Your task to perform on an android device: When is my next meeting? Image 0: 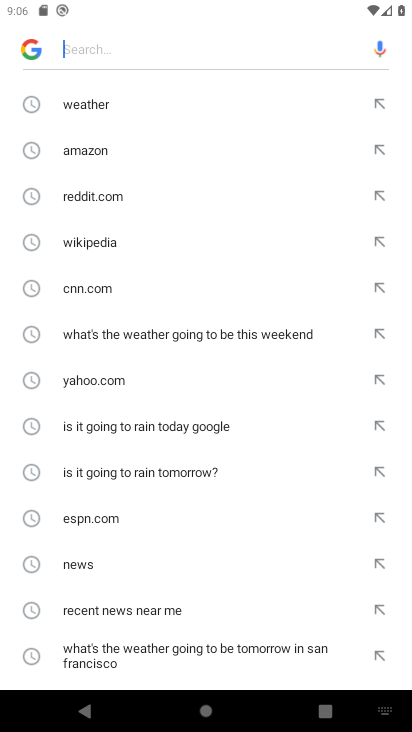
Step 0: press home button
Your task to perform on an android device: When is my next meeting? Image 1: 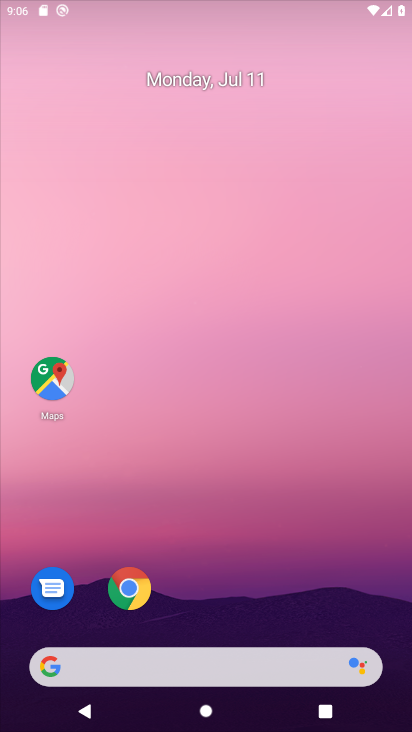
Step 1: drag from (207, 649) to (243, 126)
Your task to perform on an android device: When is my next meeting? Image 2: 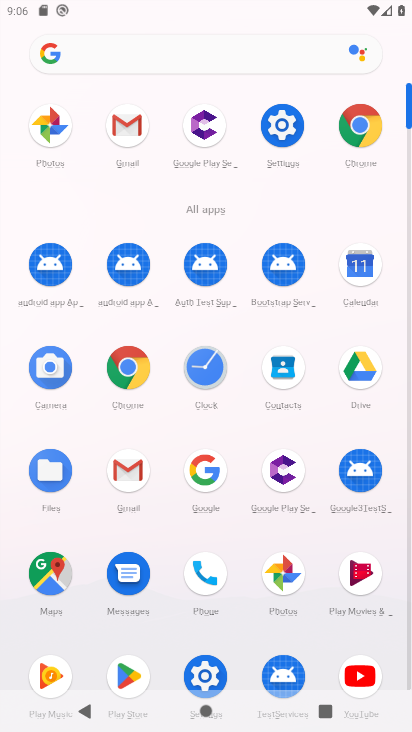
Step 2: click (356, 271)
Your task to perform on an android device: When is my next meeting? Image 3: 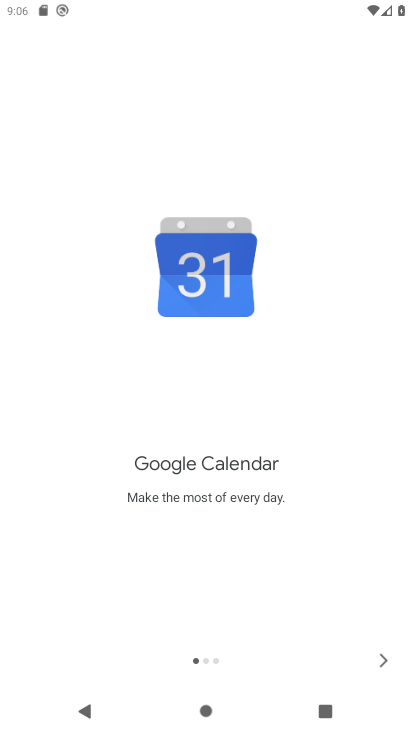
Step 3: click (375, 661)
Your task to perform on an android device: When is my next meeting? Image 4: 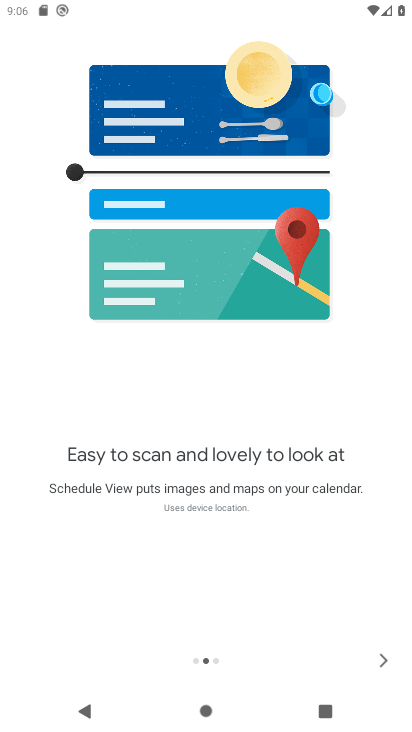
Step 4: click (375, 661)
Your task to perform on an android device: When is my next meeting? Image 5: 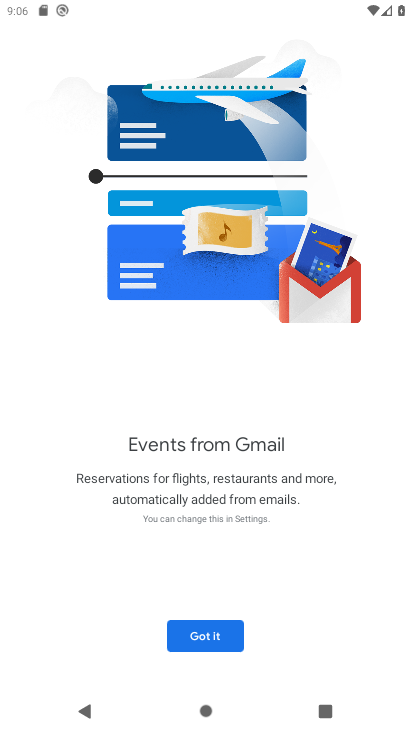
Step 5: click (193, 621)
Your task to perform on an android device: When is my next meeting? Image 6: 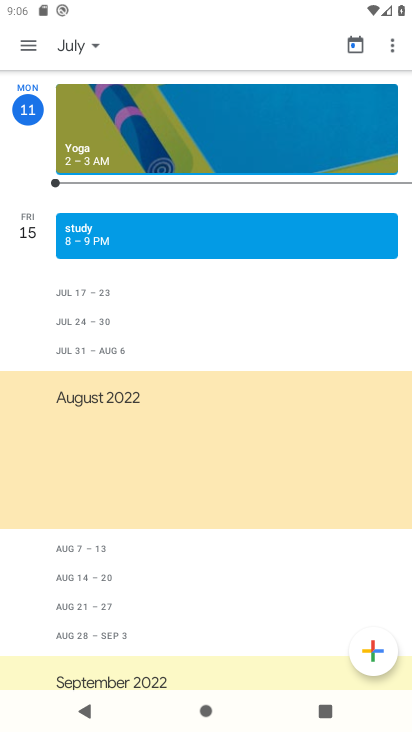
Step 6: click (14, 41)
Your task to perform on an android device: When is my next meeting? Image 7: 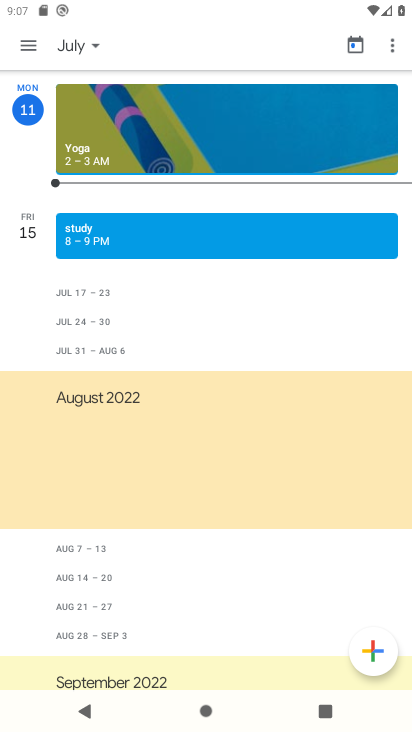
Step 7: click (28, 39)
Your task to perform on an android device: When is my next meeting? Image 8: 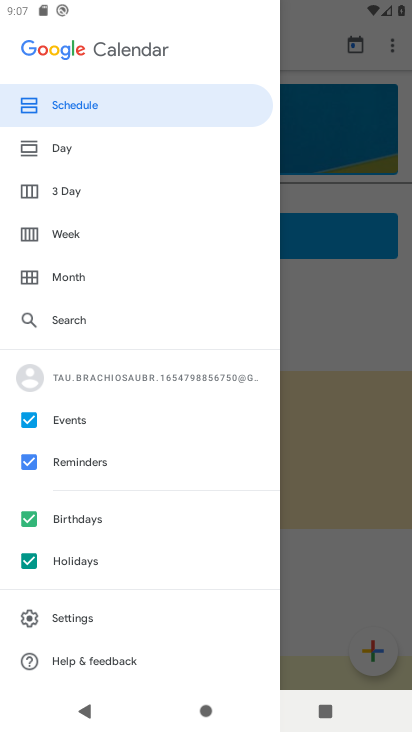
Step 8: click (75, 151)
Your task to perform on an android device: When is my next meeting? Image 9: 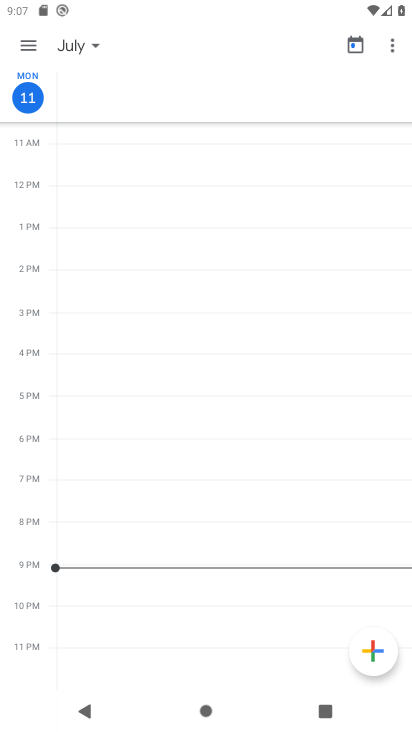
Step 9: click (32, 43)
Your task to perform on an android device: When is my next meeting? Image 10: 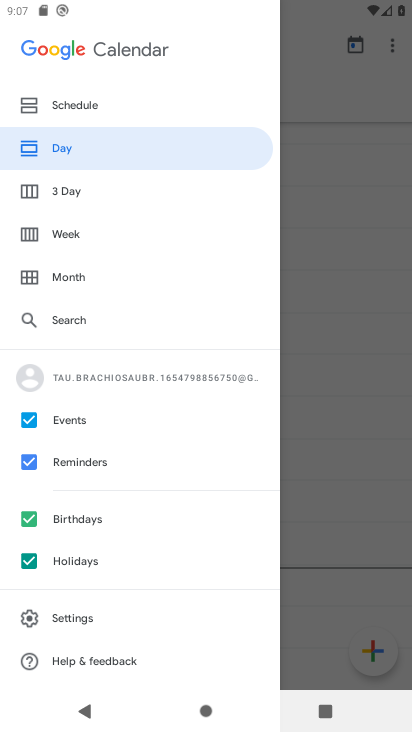
Step 10: click (71, 277)
Your task to perform on an android device: When is my next meeting? Image 11: 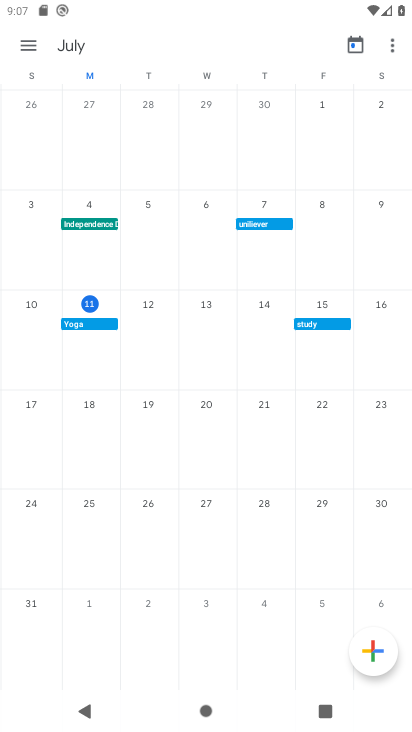
Step 11: click (210, 317)
Your task to perform on an android device: When is my next meeting? Image 12: 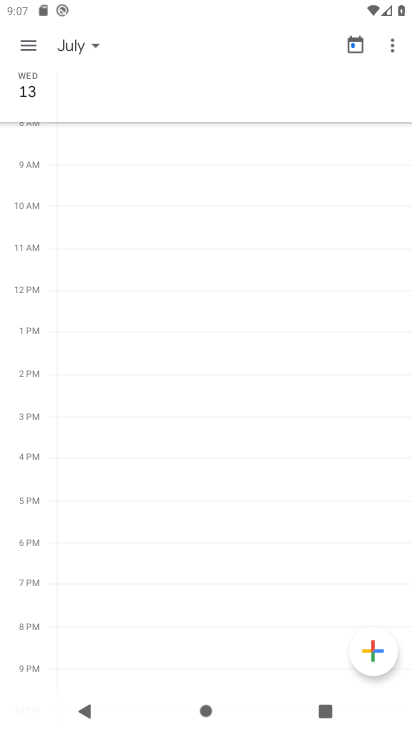
Step 12: task complete